Your task to perform on an android device: Open display settings Image 0: 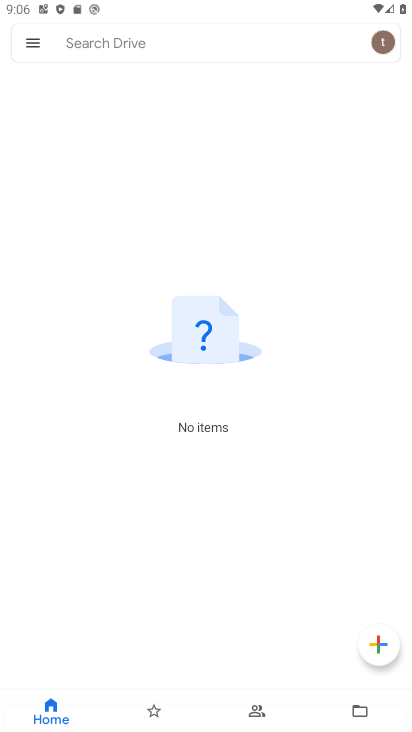
Step 0: press home button
Your task to perform on an android device: Open display settings Image 1: 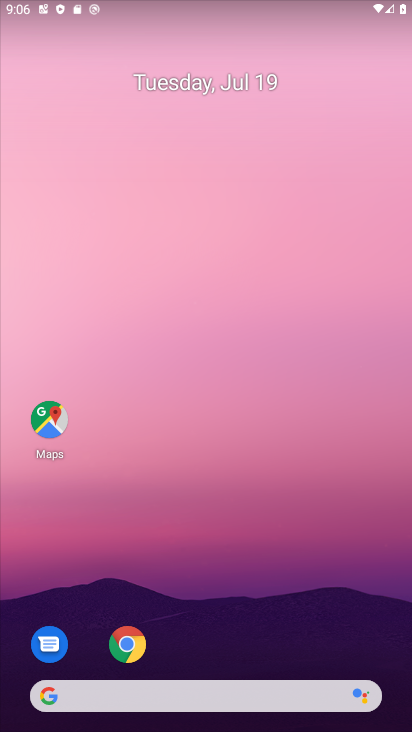
Step 1: drag from (183, 658) to (140, 136)
Your task to perform on an android device: Open display settings Image 2: 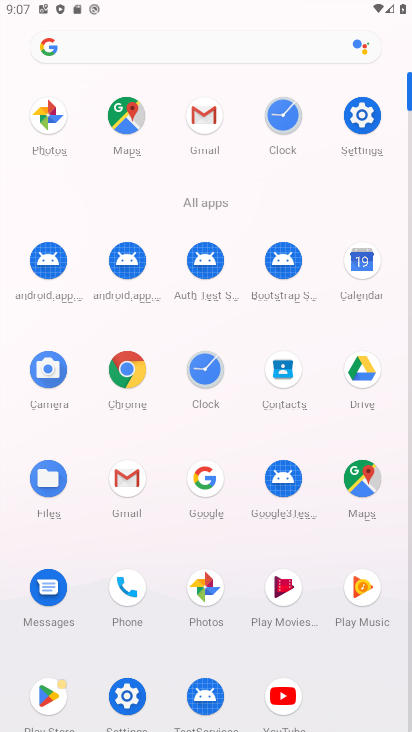
Step 2: click (356, 119)
Your task to perform on an android device: Open display settings Image 3: 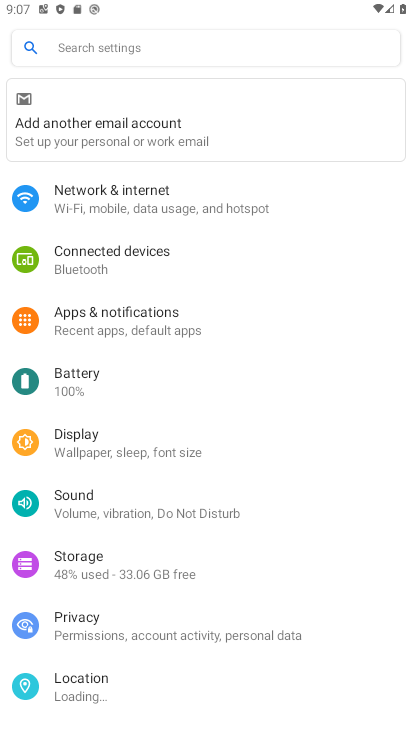
Step 3: click (77, 434)
Your task to perform on an android device: Open display settings Image 4: 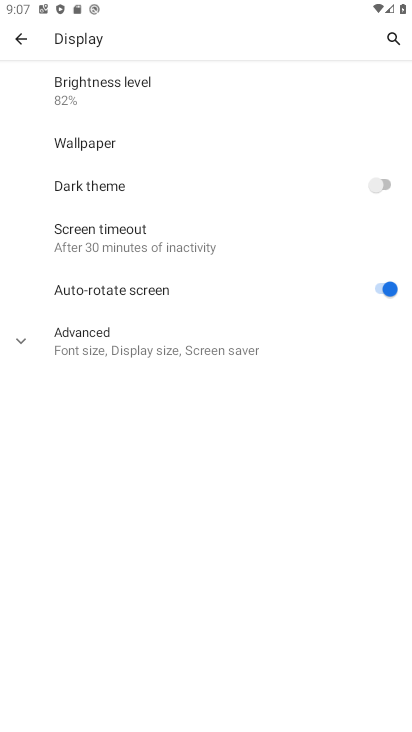
Step 4: click (117, 350)
Your task to perform on an android device: Open display settings Image 5: 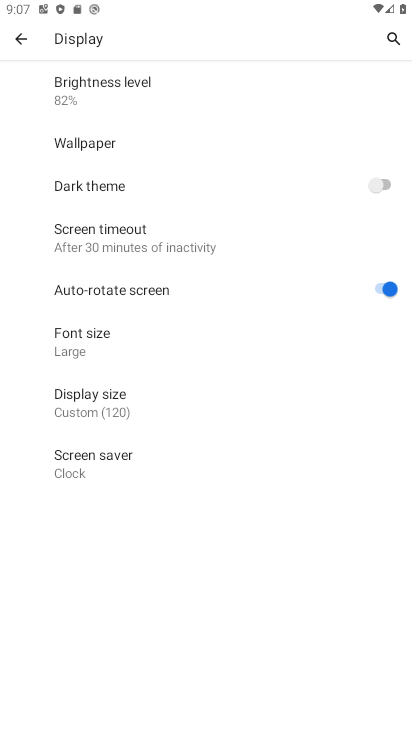
Step 5: task complete